Your task to perform on an android device: Go to CNN.com Image 0: 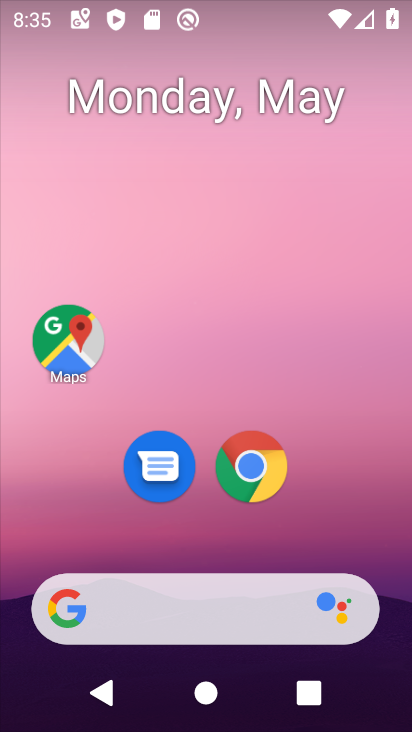
Step 0: drag from (242, 605) to (284, 8)
Your task to perform on an android device: Go to CNN.com Image 1: 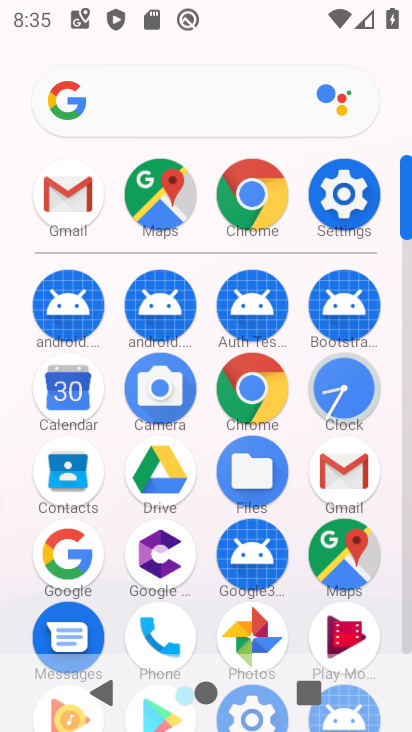
Step 1: click (245, 206)
Your task to perform on an android device: Go to CNN.com Image 2: 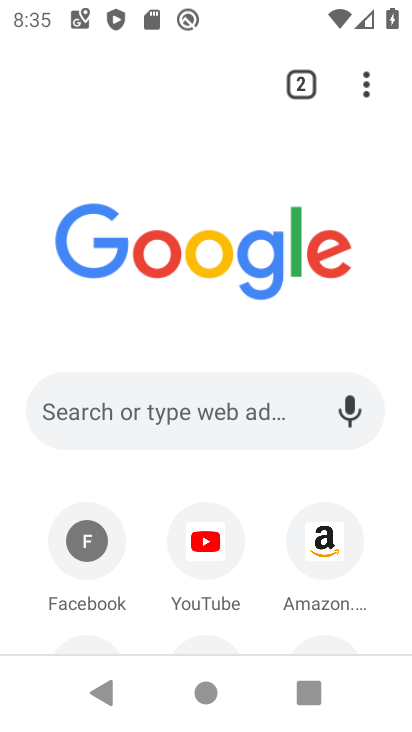
Step 2: click (189, 411)
Your task to perform on an android device: Go to CNN.com Image 3: 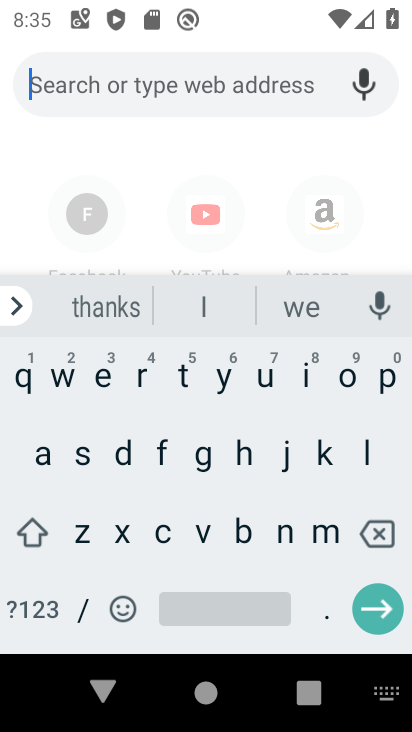
Step 3: click (158, 529)
Your task to perform on an android device: Go to CNN.com Image 4: 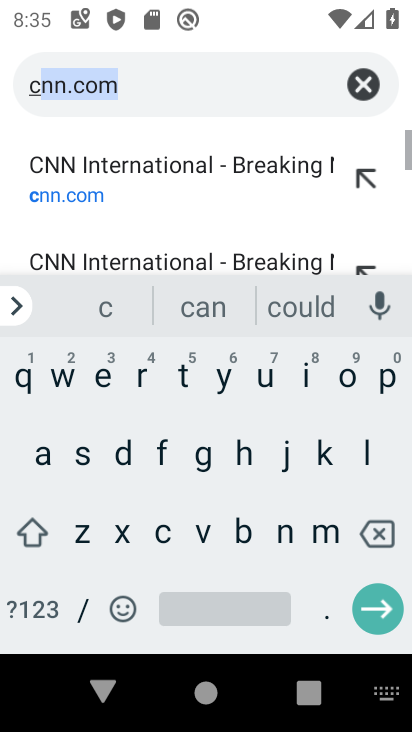
Step 4: click (280, 528)
Your task to perform on an android device: Go to CNN.com Image 5: 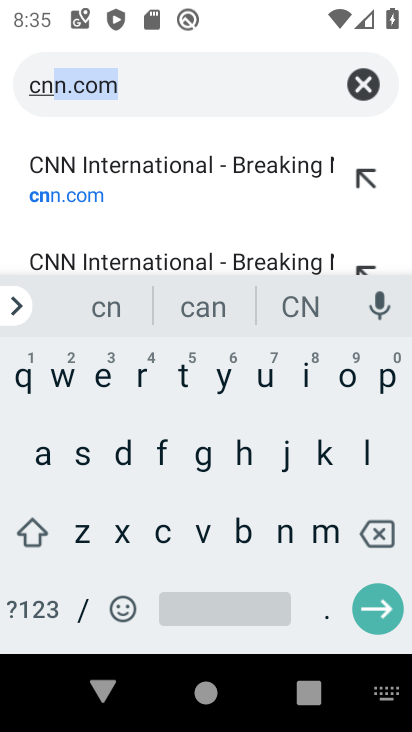
Step 5: click (136, 86)
Your task to perform on an android device: Go to CNN.com Image 6: 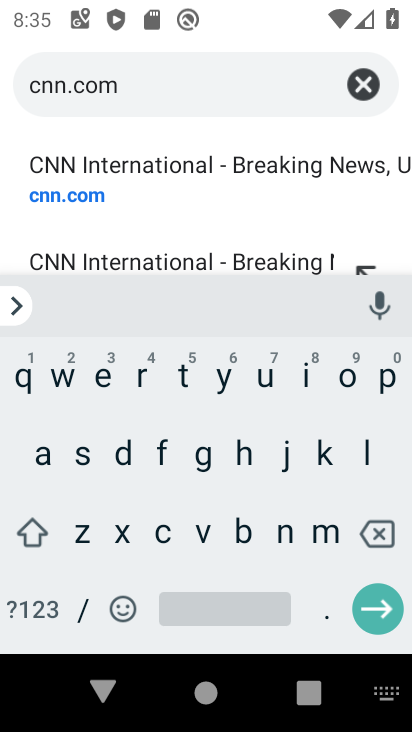
Step 6: click (378, 611)
Your task to perform on an android device: Go to CNN.com Image 7: 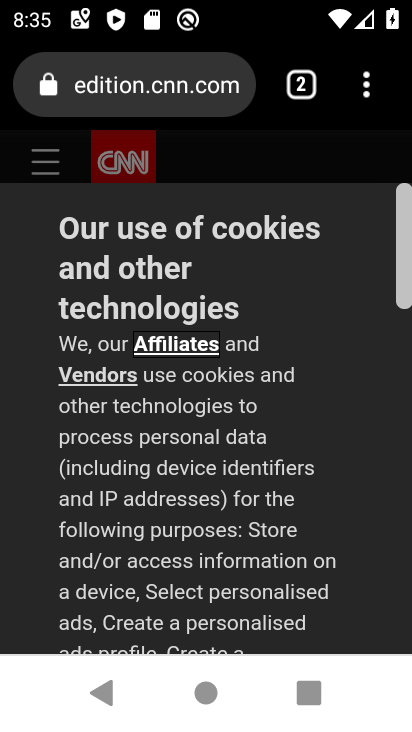
Step 7: task complete